Your task to perform on an android device: create a new album in the google photos Image 0: 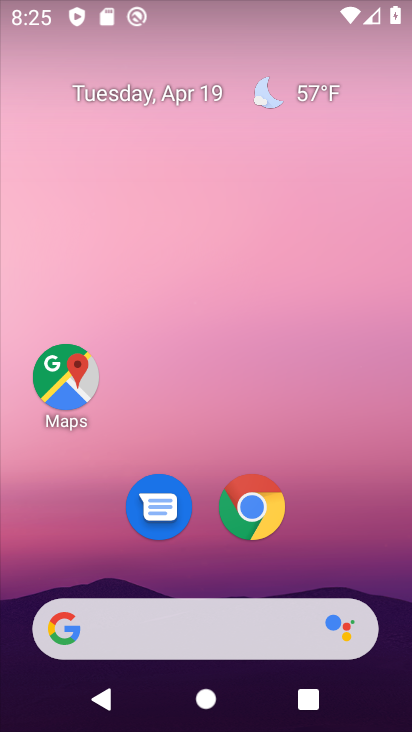
Step 0: click (374, 57)
Your task to perform on an android device: create a new album in the google photos Image 1: 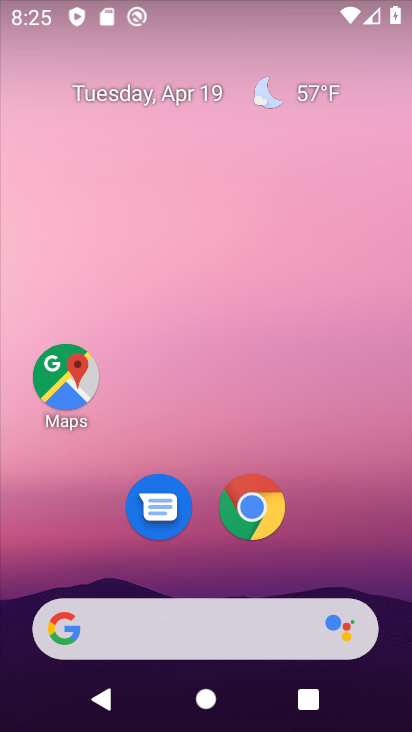
Step 1: drag from (400, 619) to (373, 235)
Your task to perform on an android device: create a new album in the google photos Image 2: 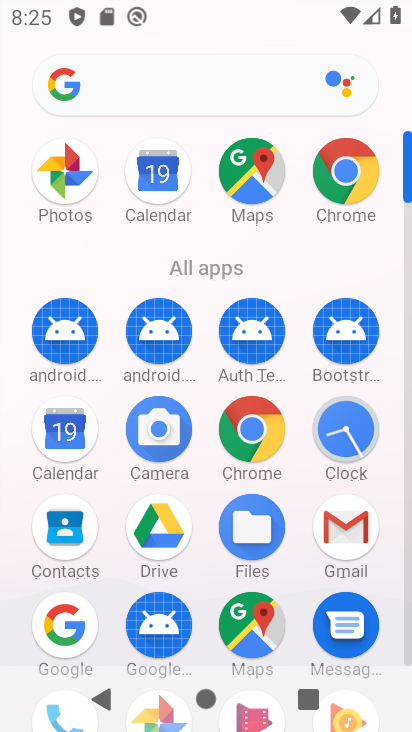
Step 2: click (80, 177)
Your task to perform on an android device: create a new album in the google photos Image 3: 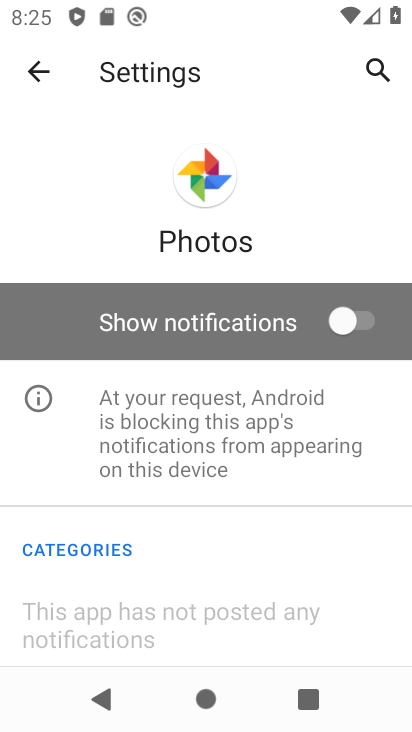
Step 3: click (38, 82)
Your task to perform on an android device: create a new album in the google photos Image 4: 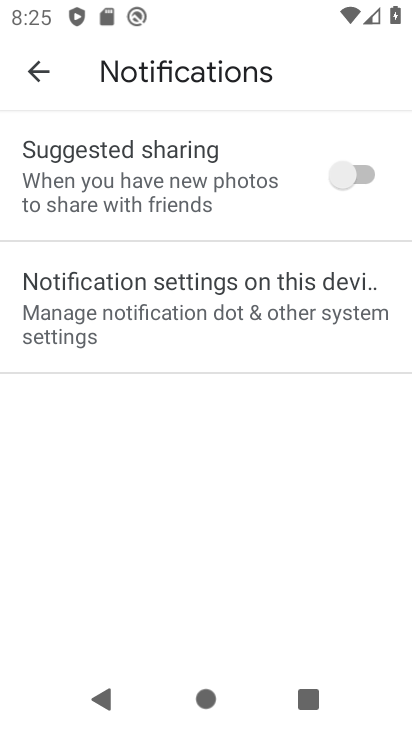
Step 4: click (32, 78)
Your task to perform on an android device: create a new album in the google photos Image 5: 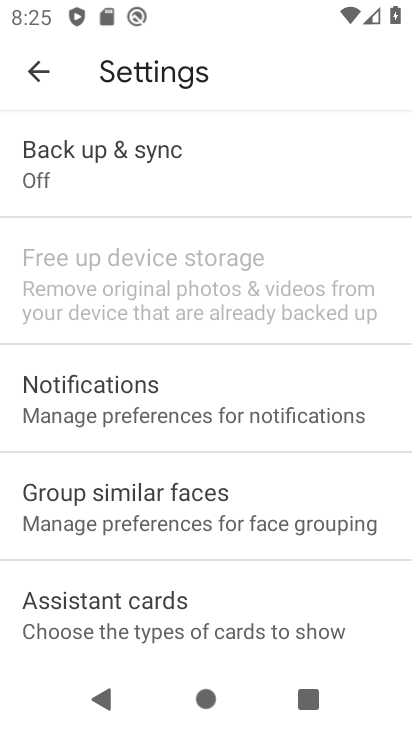
Step 5: click (59, 76)
Your task to perform on an android device: create a new album in the google photos Image 6: 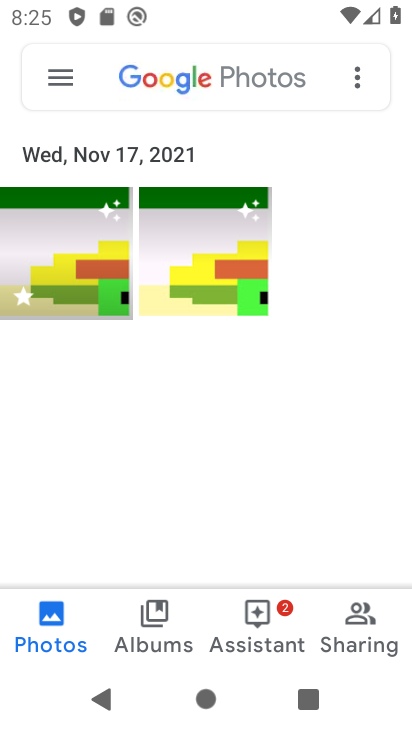
Step 6: click (168, 607)
Your task to perform on an android device: create a new album in the google photos Image 7: 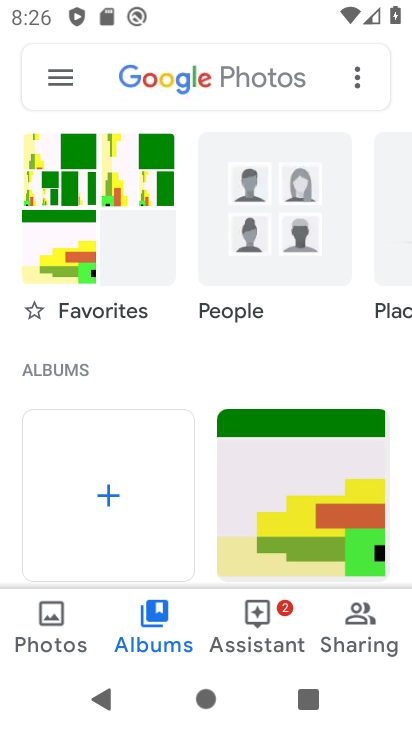
Step 7: click (163, 492)
Your task to perform on an android device: create a new album in the google photos Image 8: 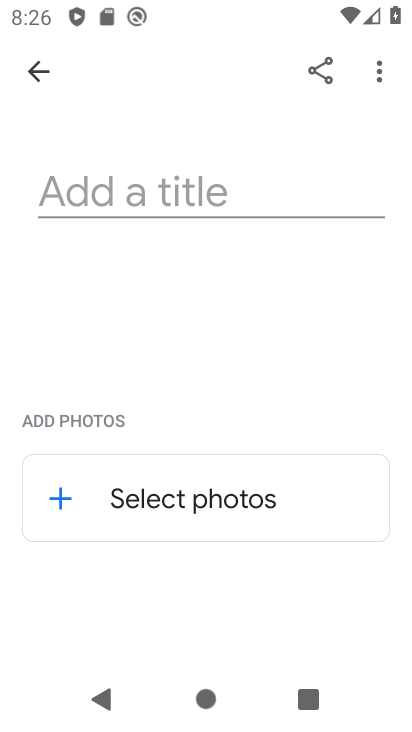
Step 8: click (281, 203)
Your task to perform on an android device: create a new album in the google photos Image 9: 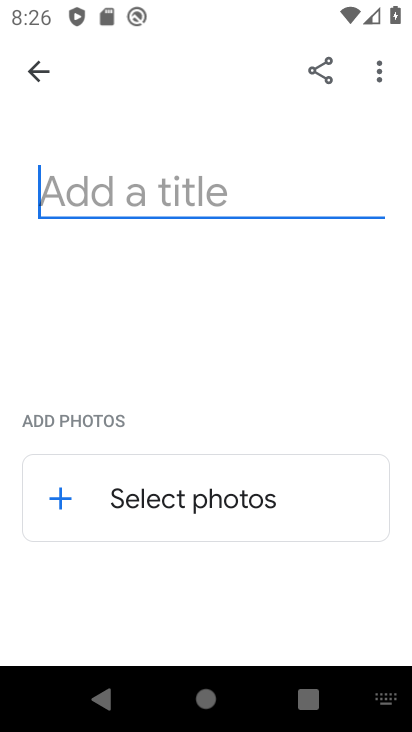
Step 9: type "kdkdk"
Your task to perform on an android device: create a new album in the google photos Image 10: 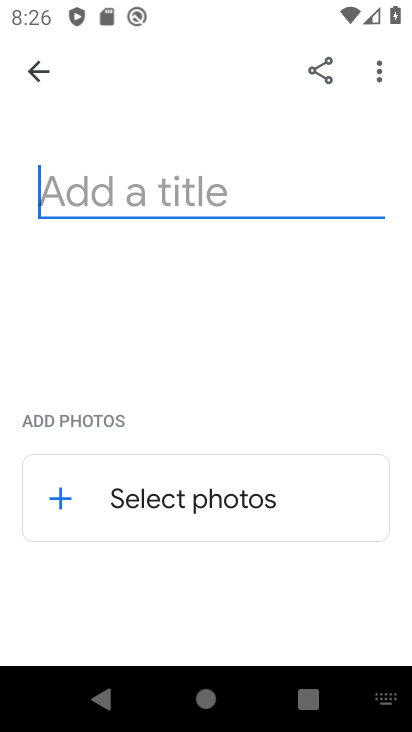
Step 10: click (259, 519)
Your task to perform on an android device: create a new album in the google photos Image 11: 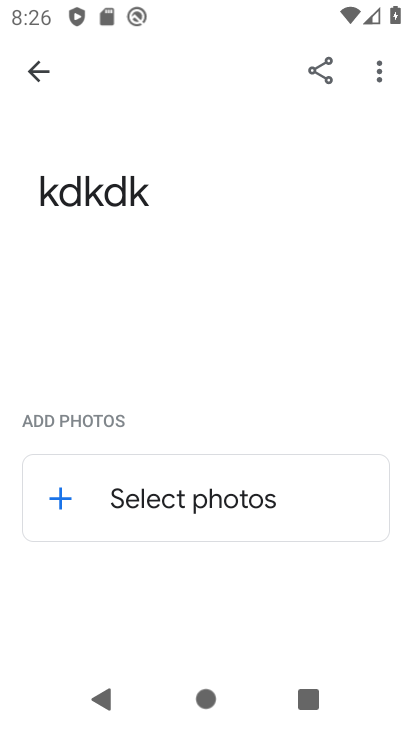
Step 11: click (199, 500)
Your task to perform on an android device: create a new album in the google photos Image 12: 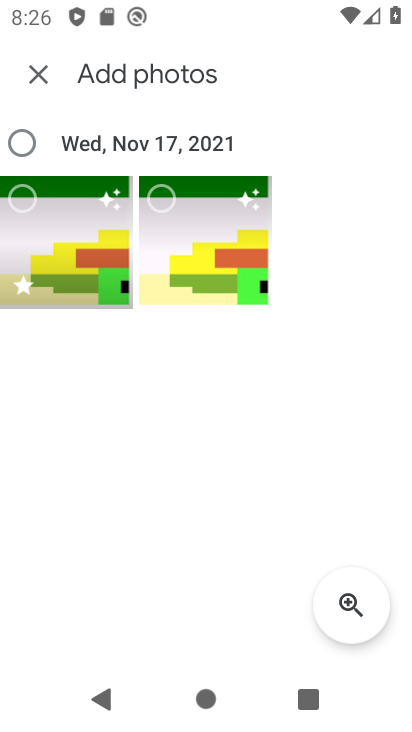
Step 12: click (225, 283)
Your task to perform on an android device: create a new album in the google photos Image 13: 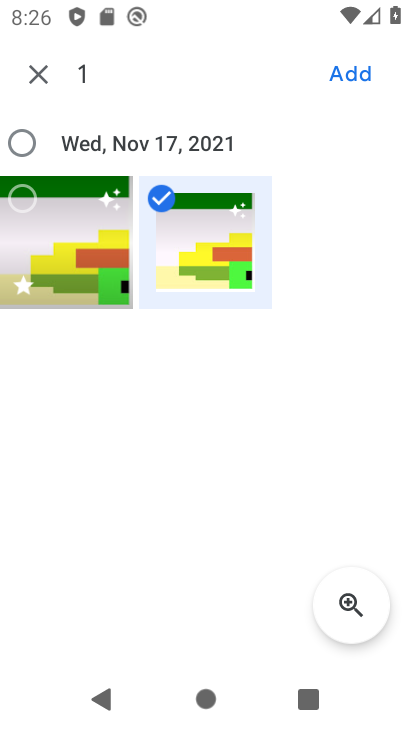
Step 13: click (82, 246)
Your task to perform on an android device: create a new album in the google photos Image 14: 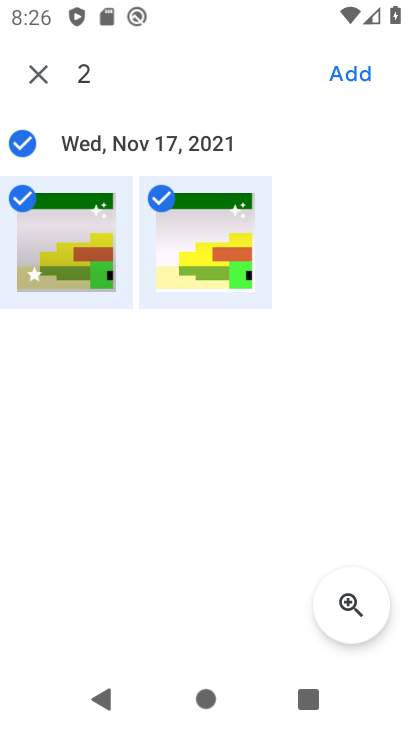
Step 14: click (378, 77)
Your task to perform on an android device: create a new album in the google photos Image 15: 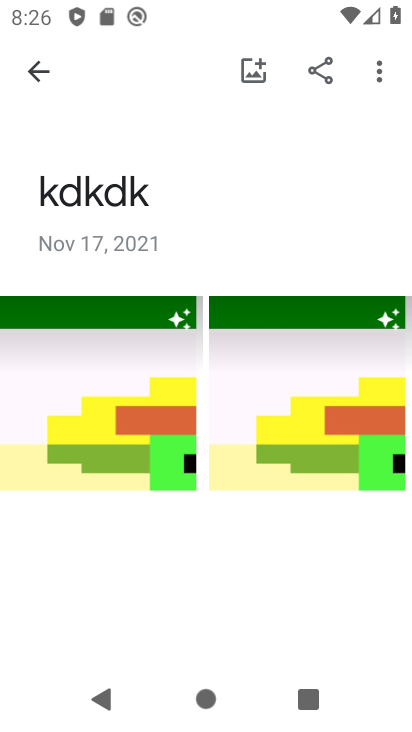
Step 15: task complete